Your task to perform on an android device: allow notifications from all sites in the chrome app Image 0: 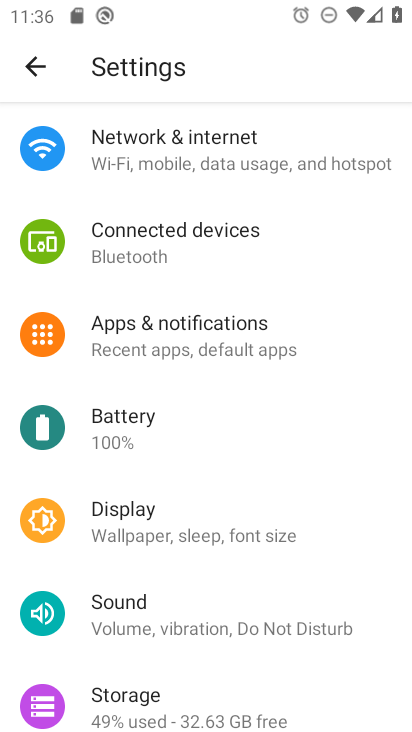
Step 0: press home button
Your task to perform on an android device: allow notifications from all sites in the chrome app Image 1: 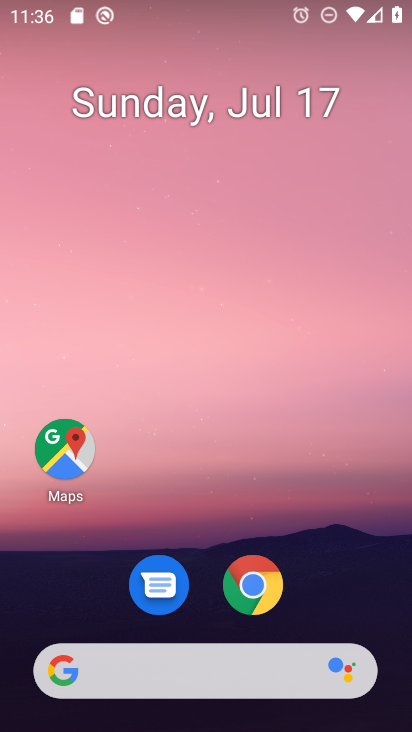
Step 1: click (264, 594)
Your task to perform on an android device: allow notifications from all sites in the chrome app Image 2: 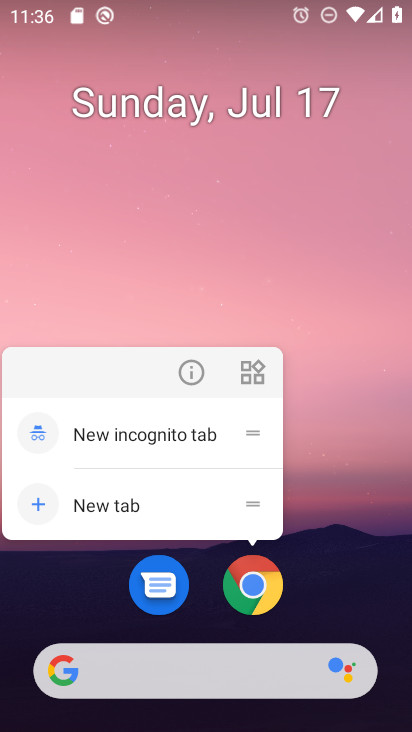
Step 2: click (264, 595)
Your task to perform on an android device: allow notifications from all sites in the chrome app Image 3: 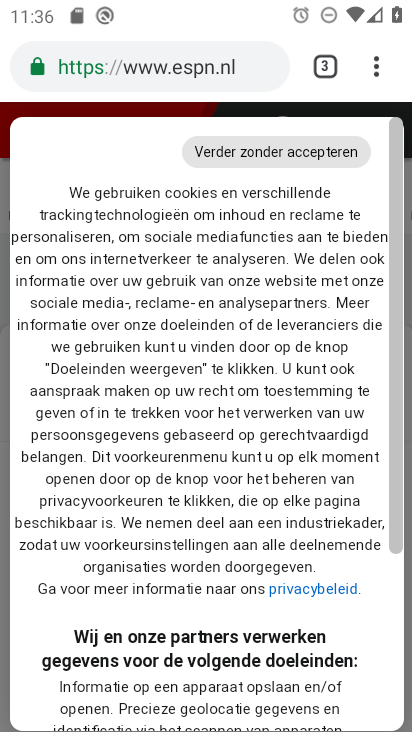
Step 3: drag from (226, 551) to (218, 202)
Your task to perform on an android device: allow notifications from all sites in the chrome app Image 4: 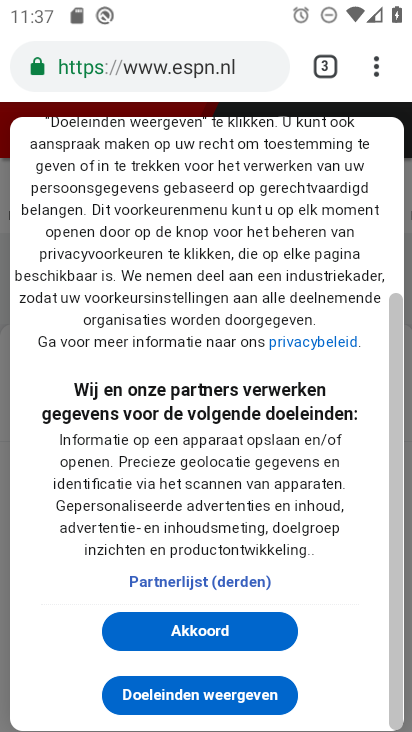
Step 4: press back button
Your task to perform on an android device: allow notifications from all sites in the chrome app Image 5: 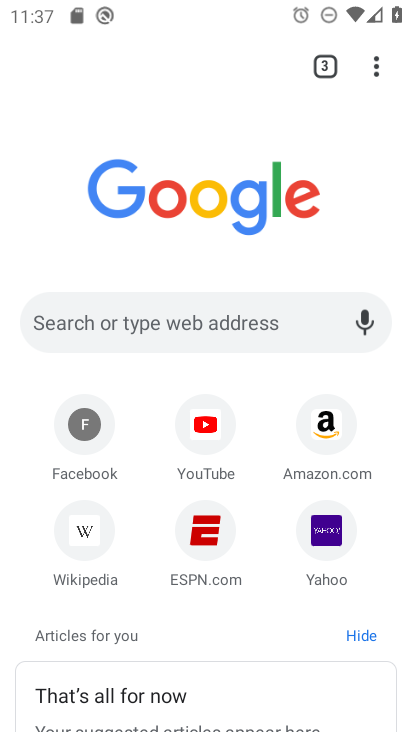
Step 5: click (375, 74)
Your task to perform on an android device: allow notifications from all sites in the chrome app Image 6: 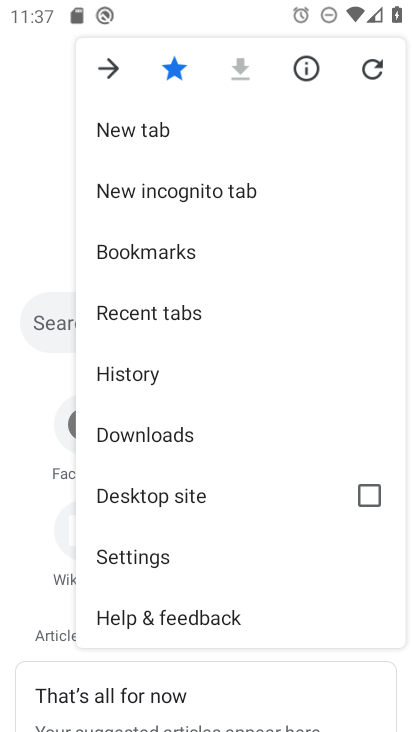
Step 6: click (162, 554)
Your task to perform on an android device: allow notifications from all sites in the chrome app Image 7: 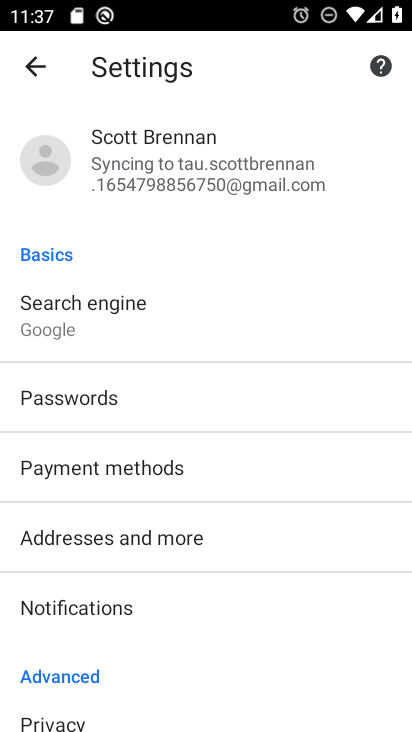
Step 7: click (155, 607)
Your task to perform on an android device: allow notifications from all sites in the chrome app Image 8: 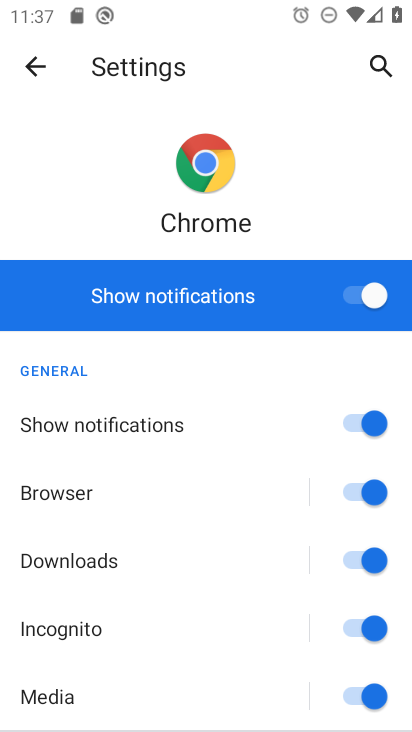
Step 8: task complete